Your task to perform on an android device: check battery use Image 0: 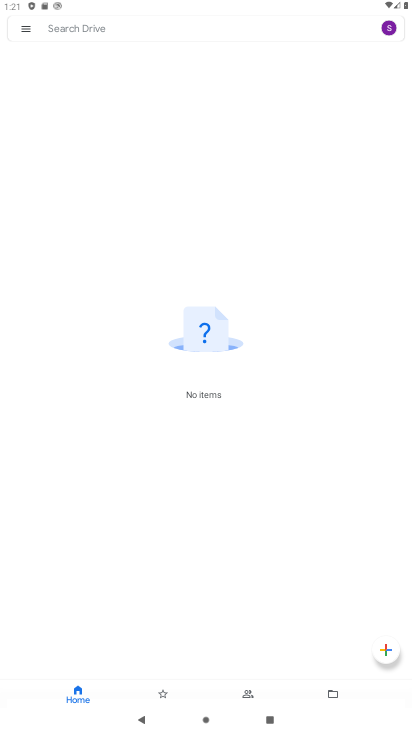
Step 0: press home button
Your task to perform on an android device: check battery use Image 1: 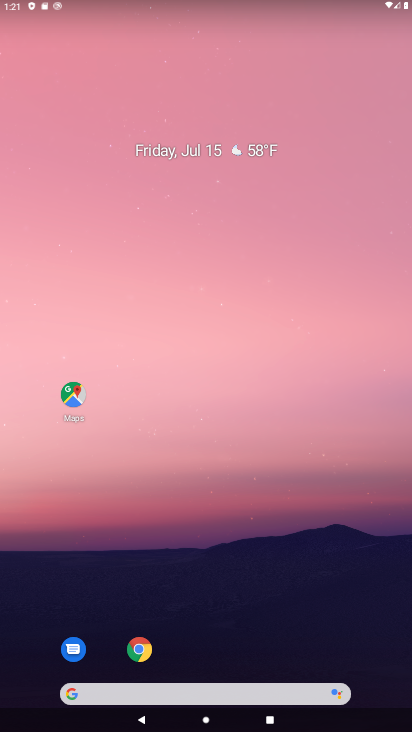
Step 1: drag from (293, 666) to (287, 38)
Your task to perform on an android device: check battery use Image 2: 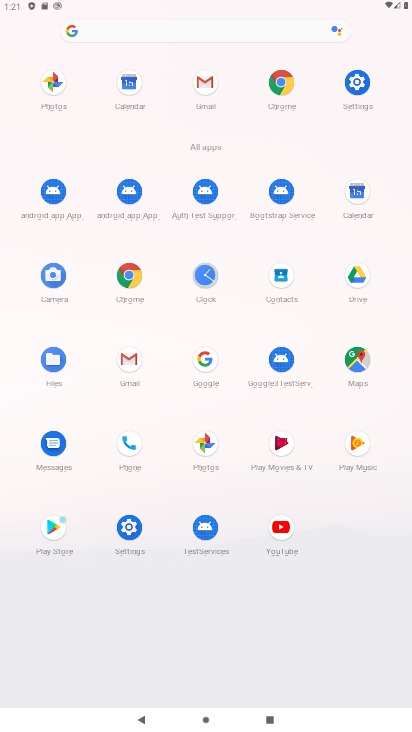
Step 2: click (353, 88)
Your task to perform on an android device: check battery use Image 3: 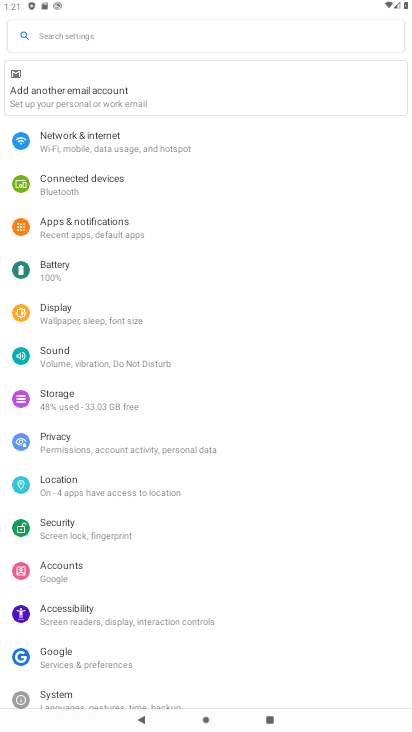
Step 3: click (66, 272)
Your task to perform on an android device: check battery use Image 4: 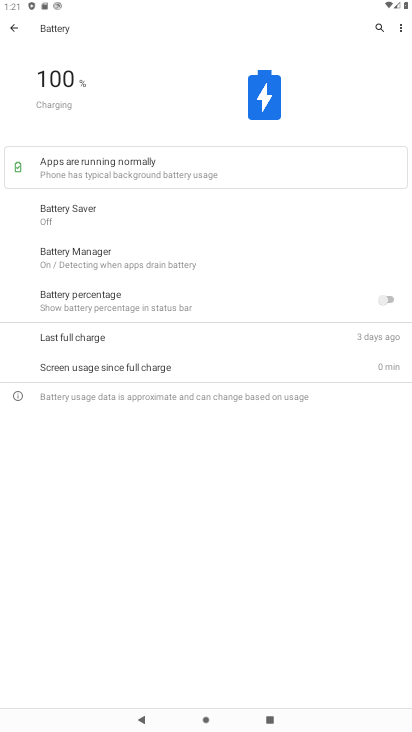
Step 4: task complete